Your task to perform on an android device: What is the recent news? Image 0: 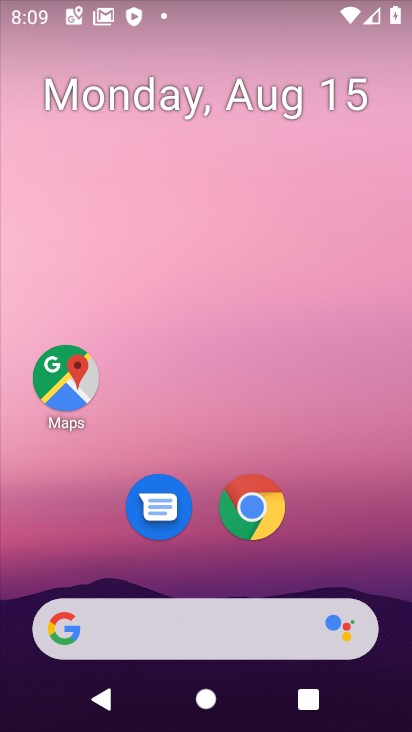
Step 0: click (256, 632)
Your task to perform on an android device: What is the recent news? Image 1: 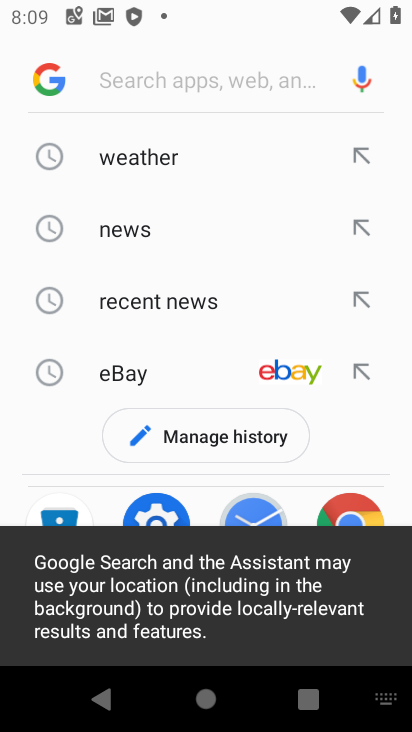
Step 1: click (145, 246)
Your task to perform on an android device: What is the recent news? Image 2: 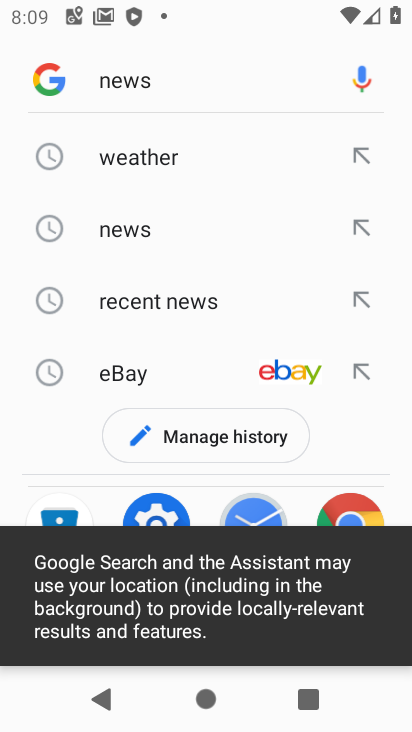
Step 2: task complete